Your task to perform on an android device: Check the news Image 0: 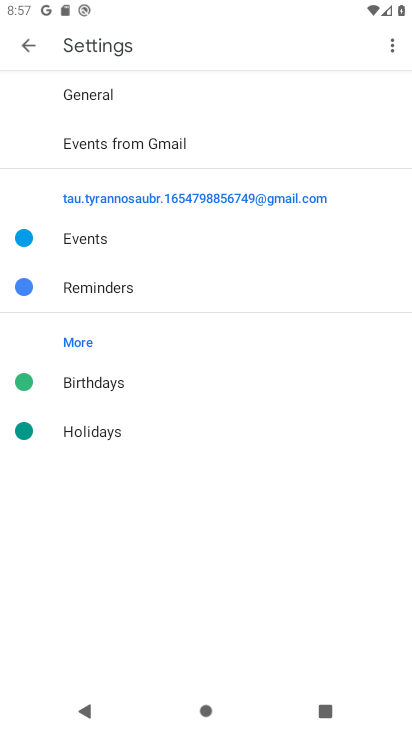
Step 0: press back button
Your task to perform on an android device: Check the news Image 1: 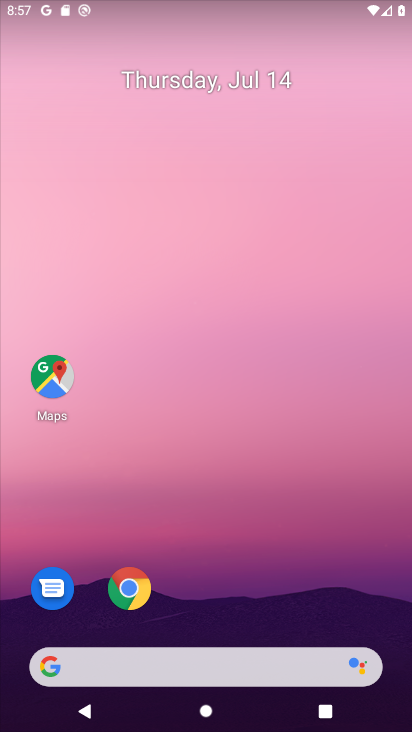
Step 1: drag from (250, 581) to (204, 194)
Your task to perform on an android device: Check the news Image 2: 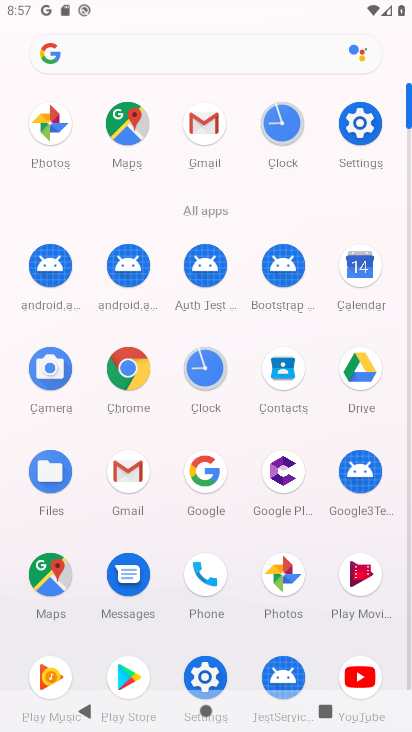
Step 2: click (122, 367)
Your task to perform on an android device: Check the news Image 3: 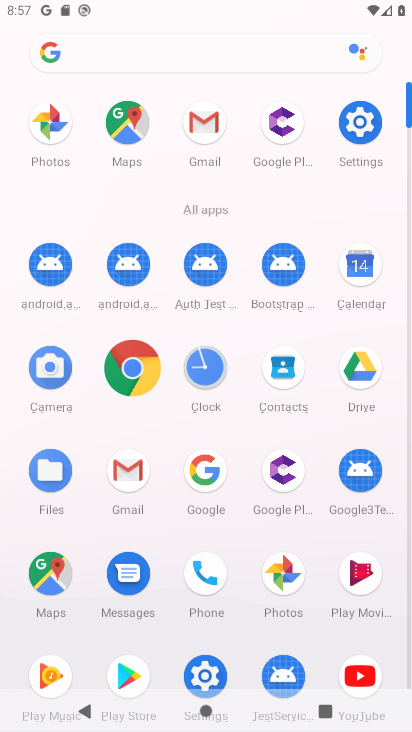
Step 3: click (123, 366)
Your task to perform on an android device: Check the news Image 4: 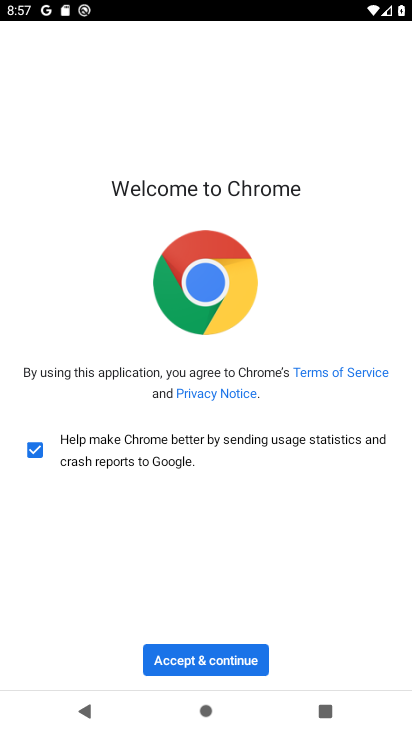
Step 4: press back button
Your task to perform on an android device: Check the news Image 5: 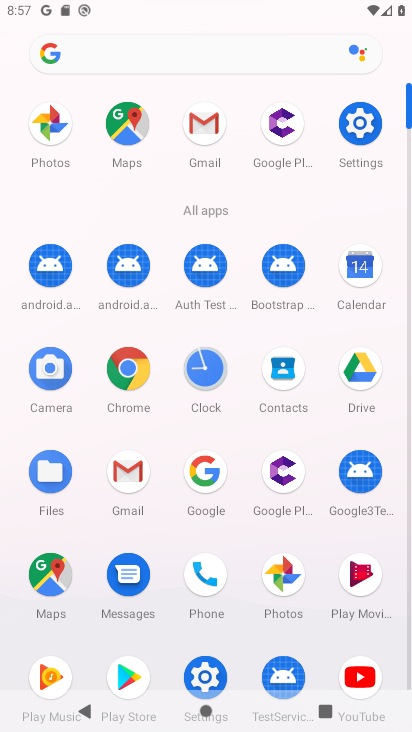
Step 5: click (132, 375)
Your task to perform on an android device: Check the news Image 6: 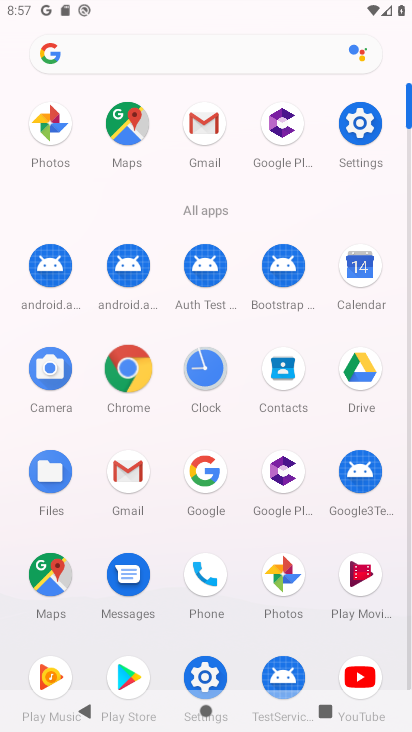
Step 6: click (130, 372)
Your task to perform on an android device: Check the news Image 7: 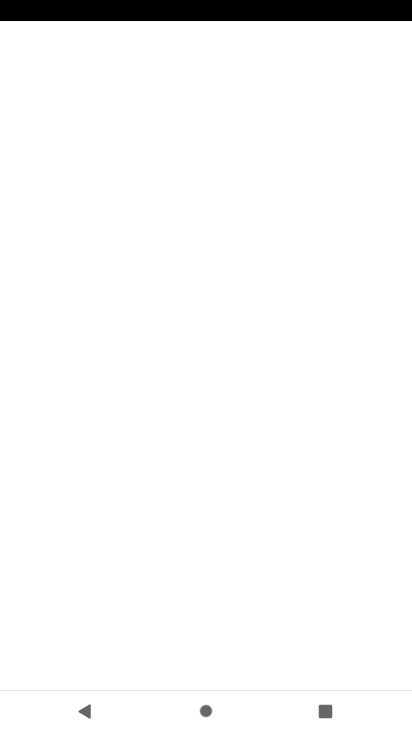
Step 7: click (130, 372)
Your task to perform on an android device: Check the news Image 8: 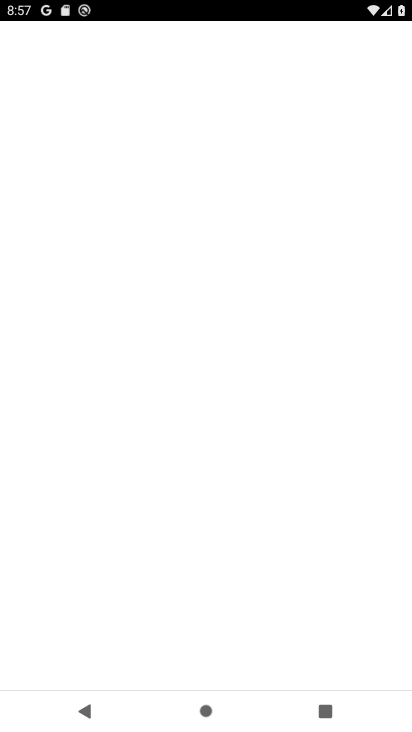
Step 8: click (131, 371)
Your task to perform on an android device: Check the news Image 9: 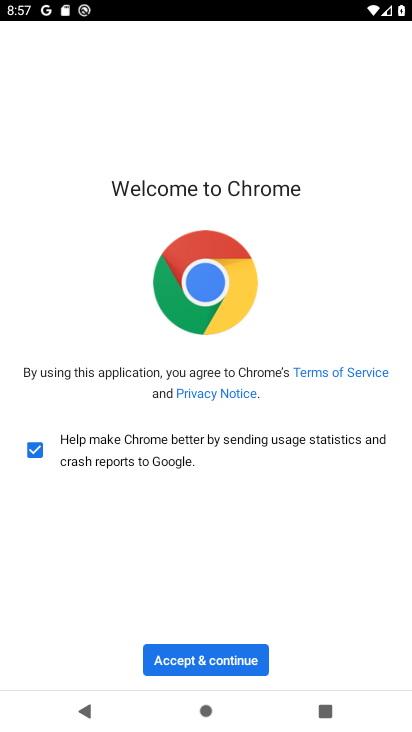
Step 9: click (215, 675)
Your task to perform on an android device: Check the news Image 10: 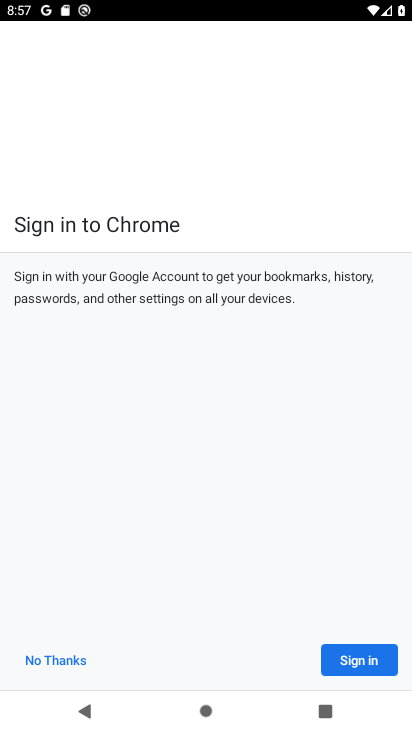
Step 10: click (216, 657)
Your task to perform on an android device: Check the news Image 11: 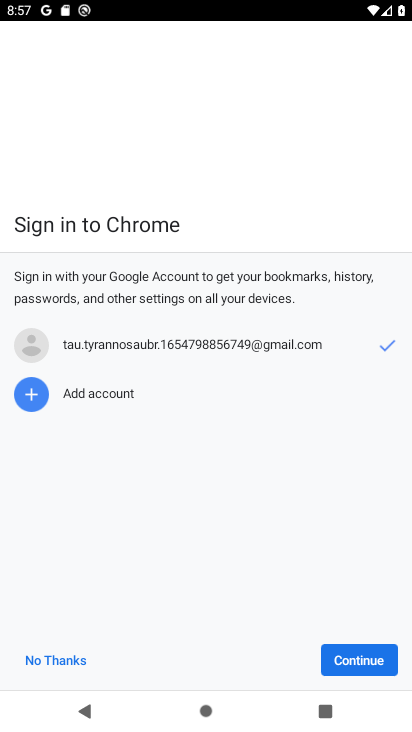
Step 11: click (358, 661)
Your task to perform on an android device: Check the news Image 12: 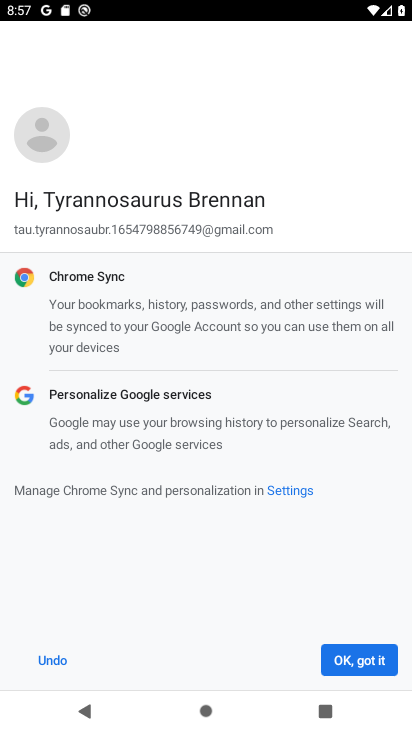
Step 12: click (358, 659)
Your task to perform on an android device: Check the news Image 13: 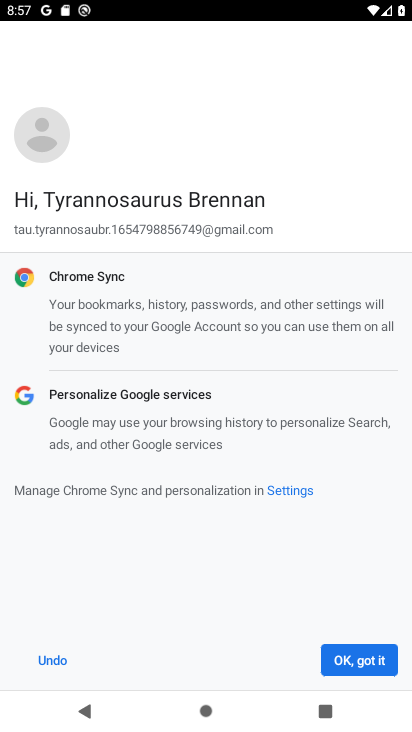
Step 13: click (353, 659)
Your task to perform on an android device: Check the news Image 14: 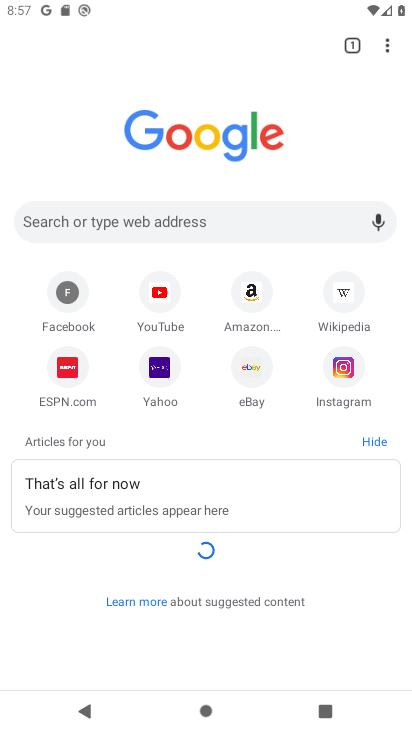
Step 14: task complete